Your task to perform on an android device: turn off improve location accuracy Image 0: 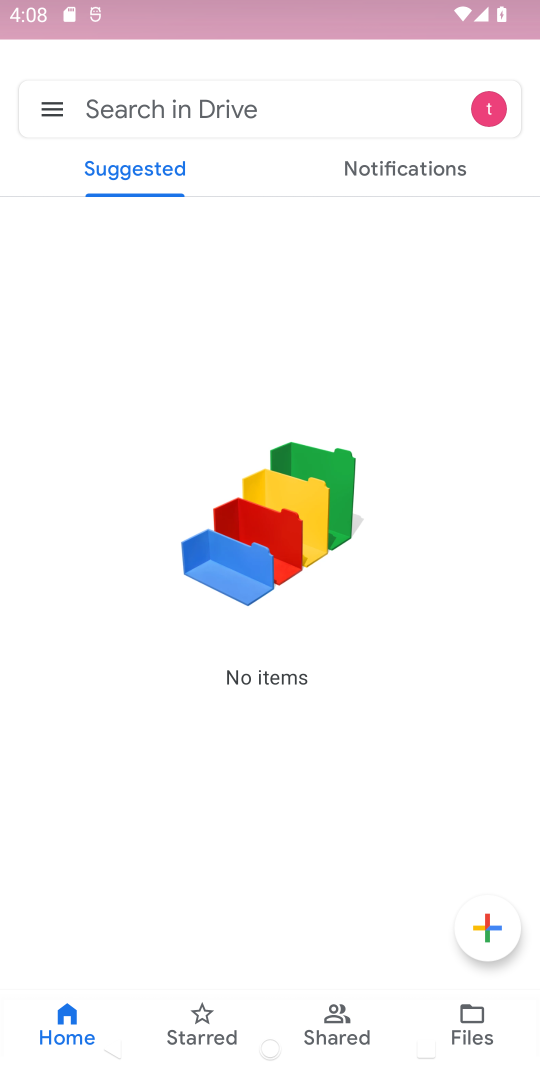
Step 0: press home button
Your task to perform on an android device: turn off improve location accuracy Image 1: 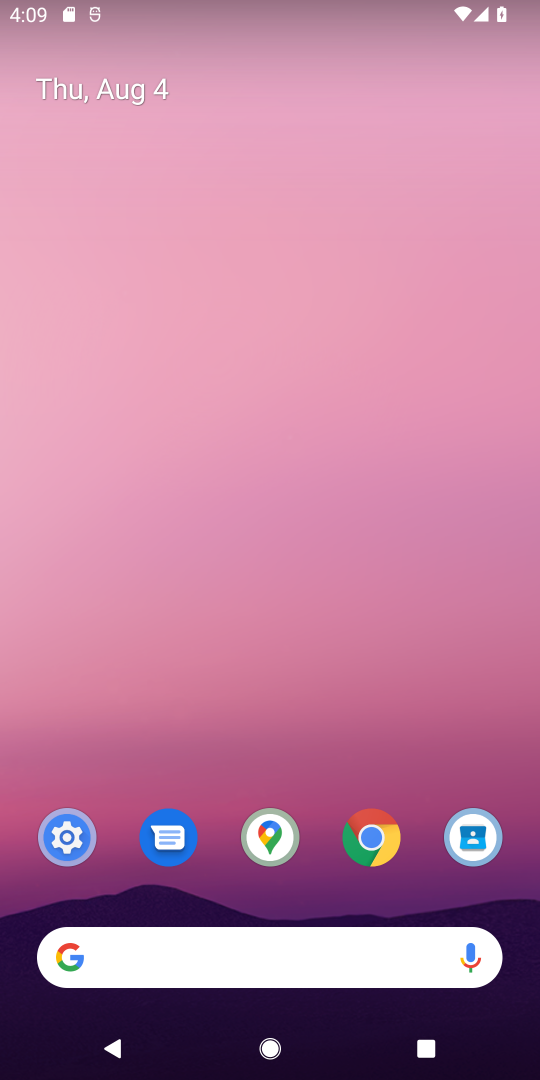
Step 1: click (63, 828)
Your task to perform on an android device: turn off improve location accuracy Image 2: 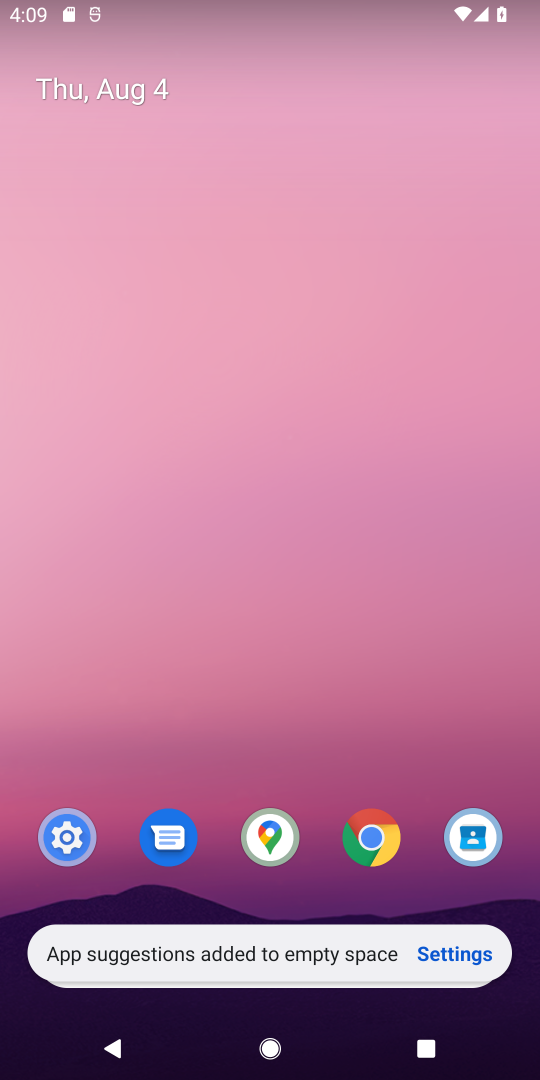
Step 2: click (67, 829)
Your task to perform on an android device: turn off improve location accuracy Image 3: 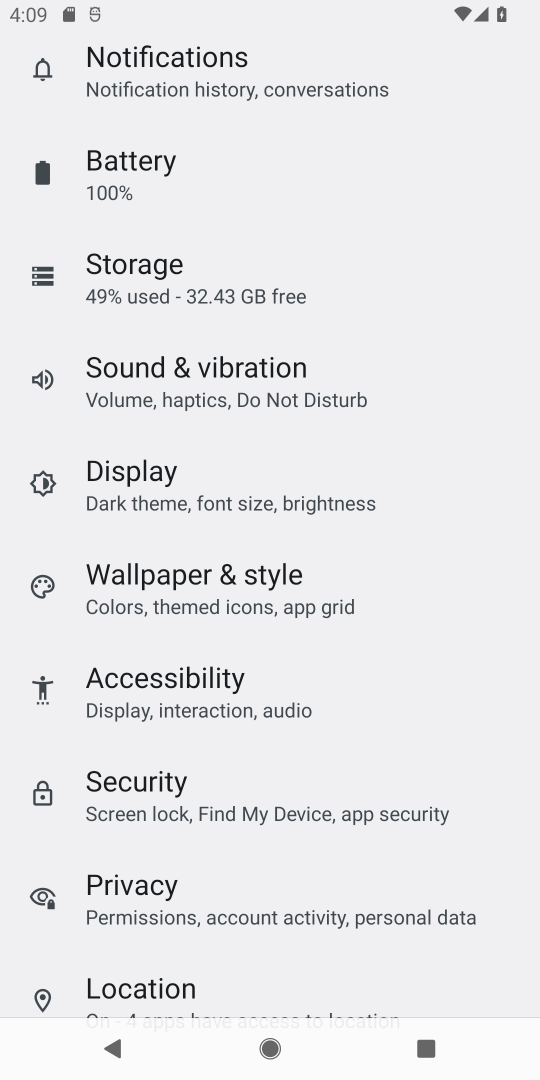
Step 3: drag from (256, 357) to (268, 245)
Your task to perform on an android device: turn off improve location accuracy Image 4: 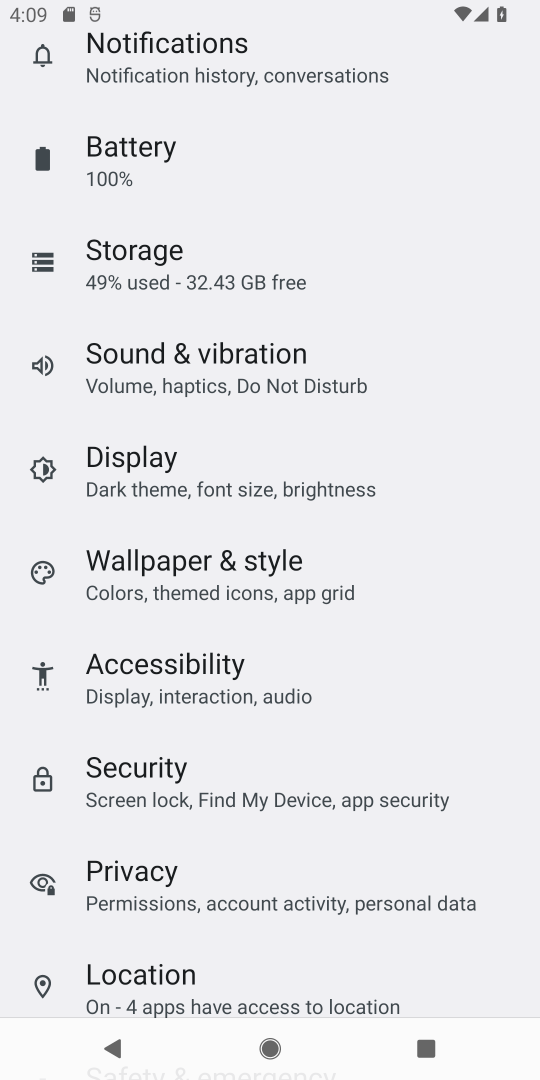
Step 4: click (206, 973)
Your task to perform on an android device: turn off improve location accuracy Image 5: 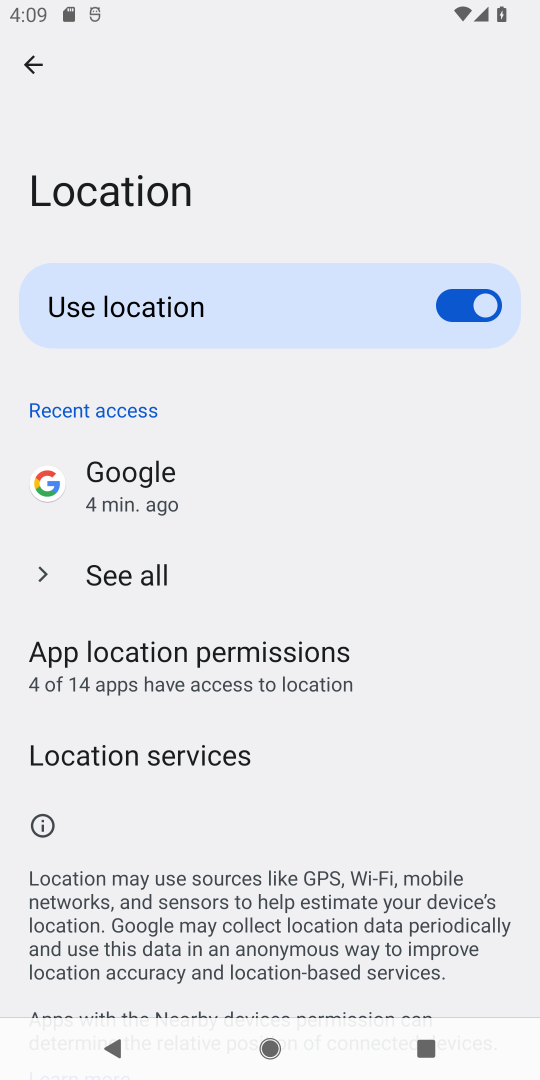
Step 5: click (66, 756)
Your task to perform on an android device: turn off improve location accuracy Image 6: 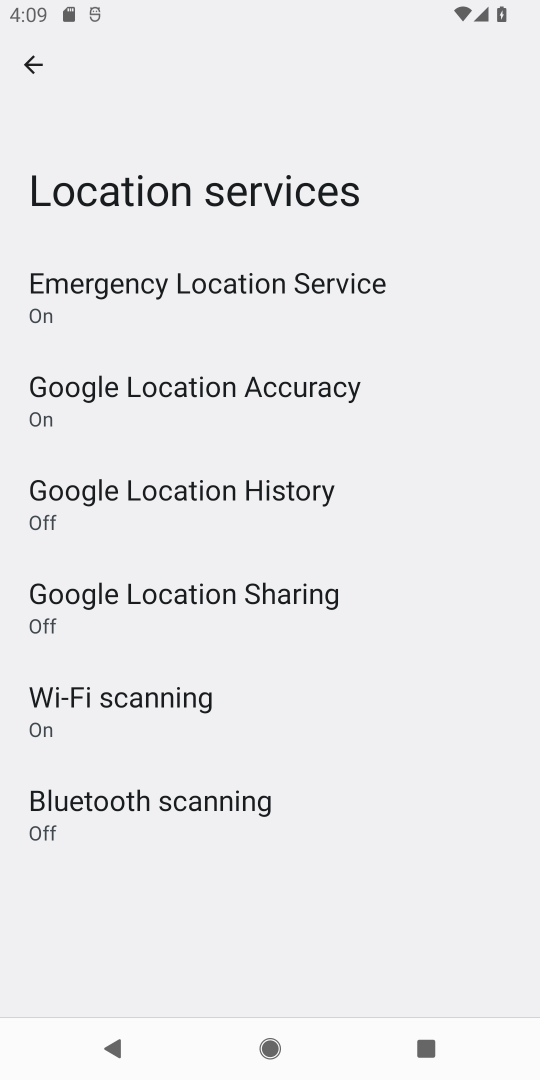
Step 6: click (143, 404)
Your task to perform on an android device: turn off improve location accuracy Image 7: 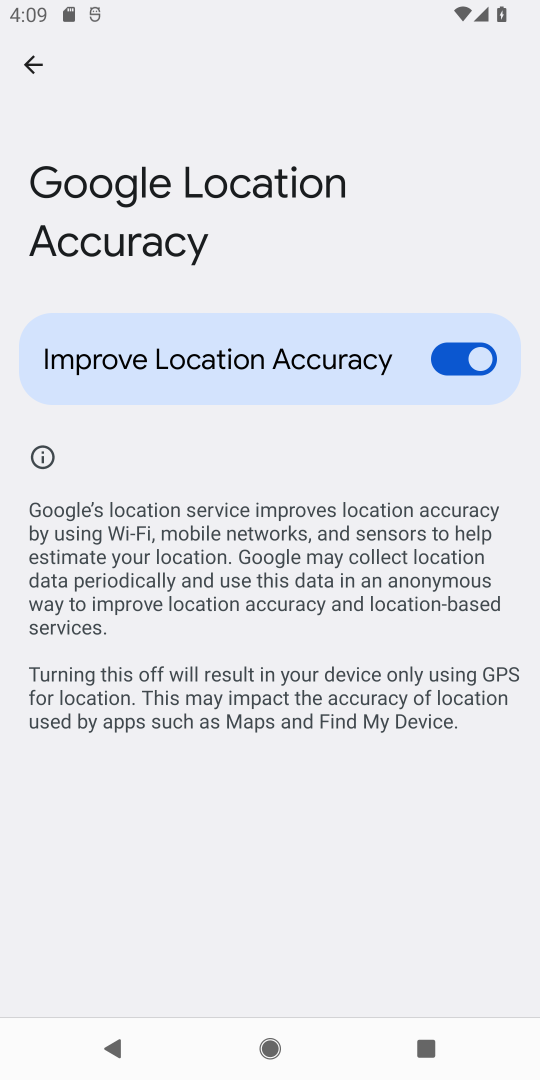
Step 7: click (451, 352)
Your task to perform on an android device: turn off improve location accuracy Image 8: 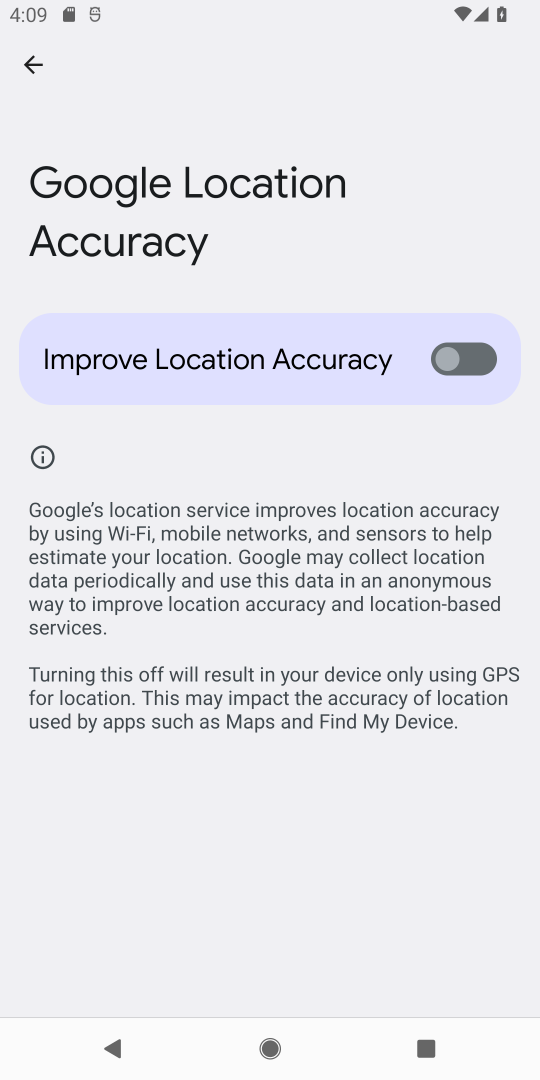
Step 8: task complete